Your task to perform on an android device: Go to sound settings Image 0: 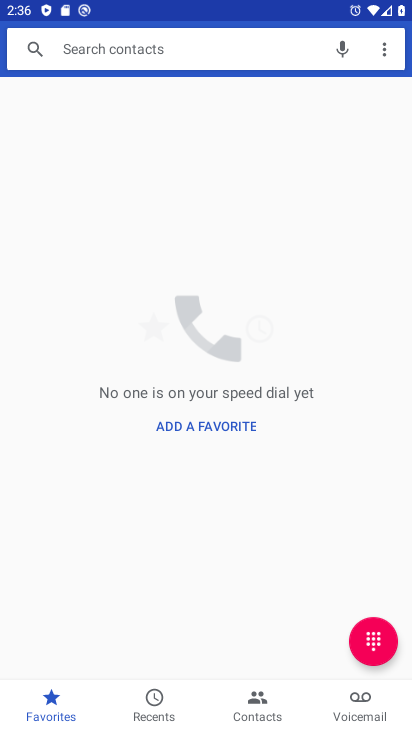
Step 0: press home button
Your task to perform on an android device: Go to sound settings Image 1: 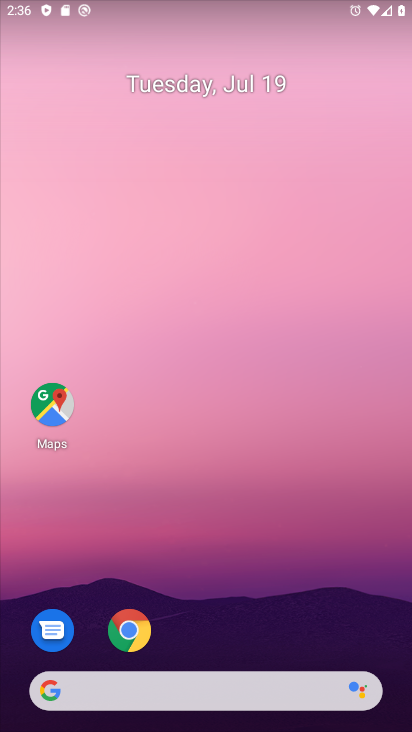
Step 1: drag from (215, 578) to (203, 83)
Your task to perform on an android device: Go to sound settings Image 2: 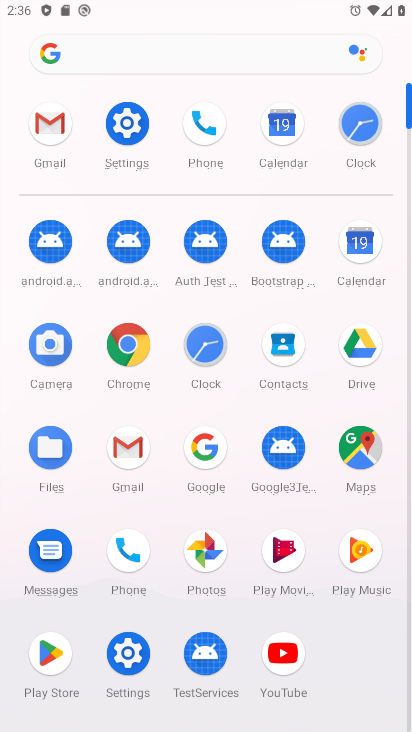
Step 2: click (130, 121)
Your task to perform on an android device: Go to sound settings Image 3: 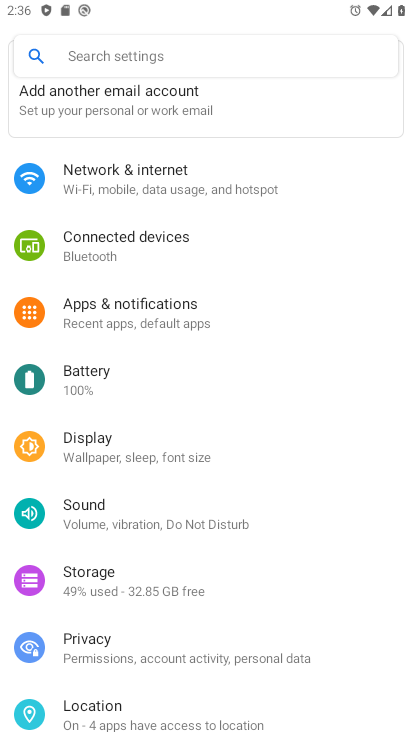
Step 3: click (142, 519)
Your task to perform on an android device: Go to sound settings Image 4: 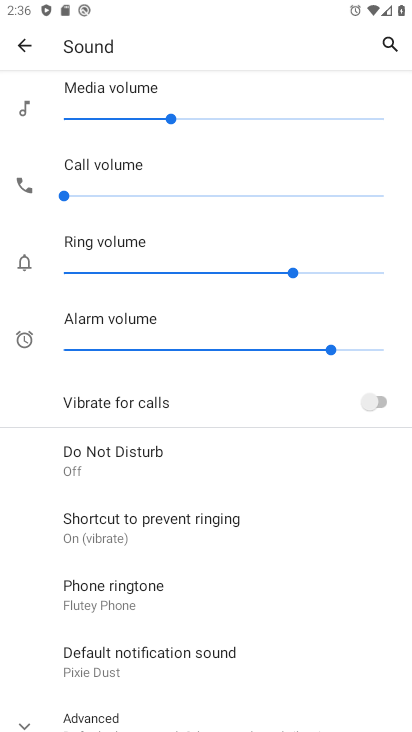
Step 4: task complete